Your task to perform on an android device: open a new tab in the chrome app Image 0: 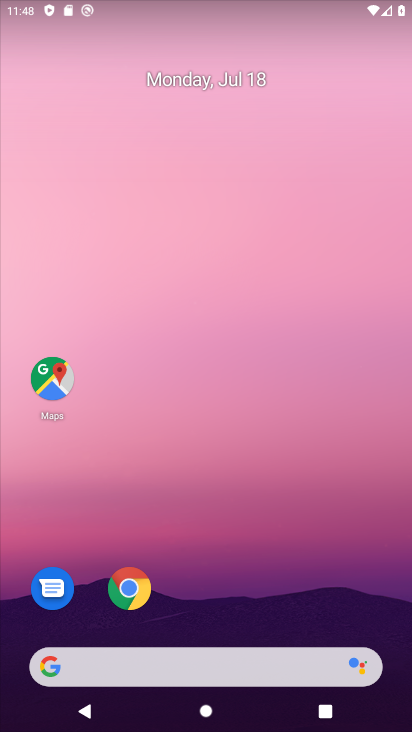
Step 0: drag from (299, 684) to (181, 10)
Your task to perform on an android device: open a new tab in the chrome app Image 1: 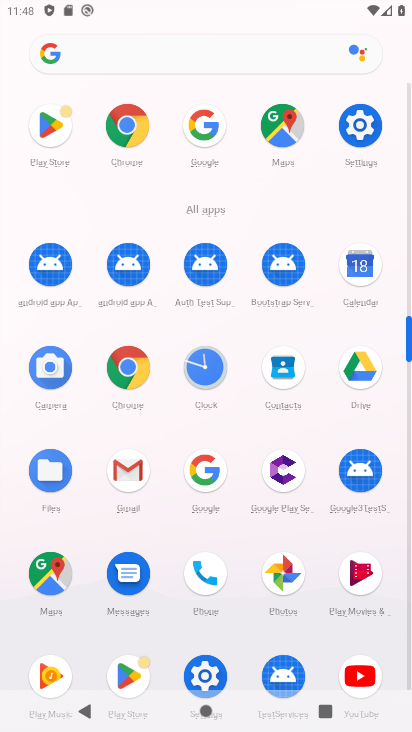
Step 1: click (123, 124)
Your task to perform on an android device: open a new tab in the chrome app Image 2: 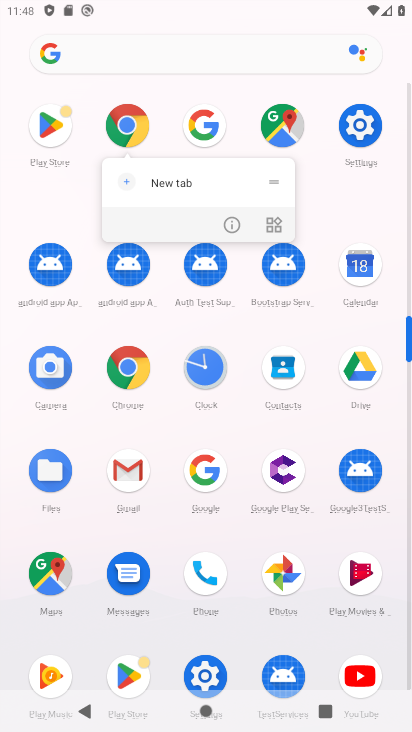
Step 2: click (136, 128)
Your task to perform on an android device: open a new tab in the chrome app Image 3: 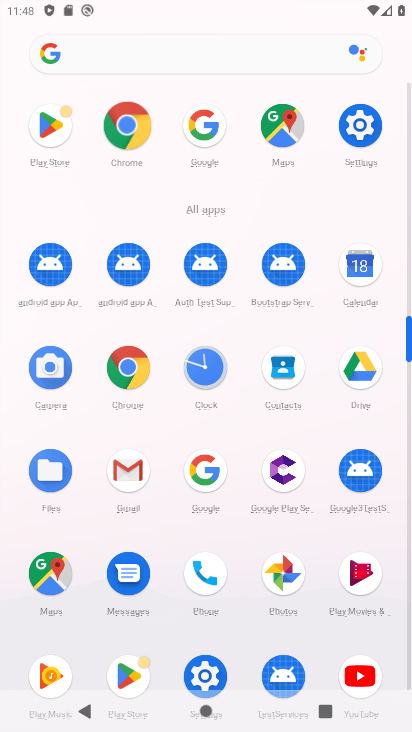
Step 3: click (133, 128)
Your task to perform on an android device: open a new tab in the chrome app Image 4: 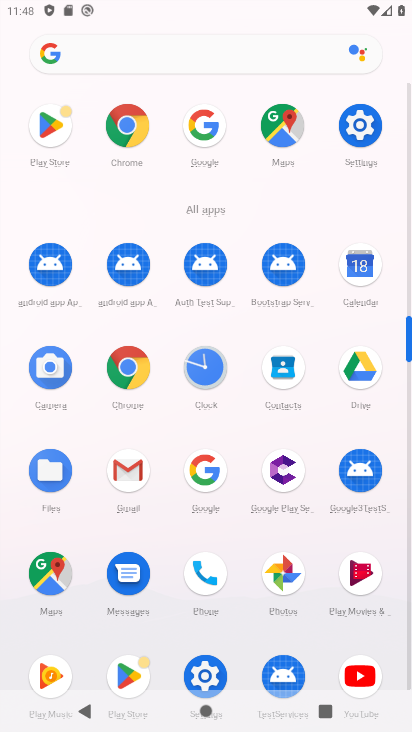
Step 4: click (132, 126)
Your task to perform on an android device: open a new tab in the chrome app Image 5: 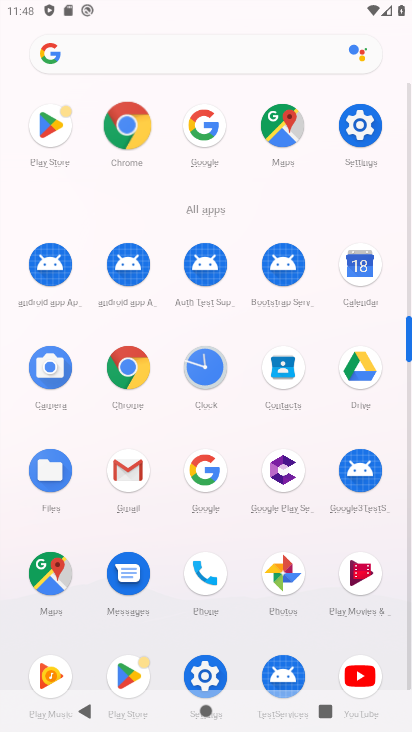
Step 5: click (140, 131)
Your task to perform on an android device: open a new tab in the chrome app Image 6: 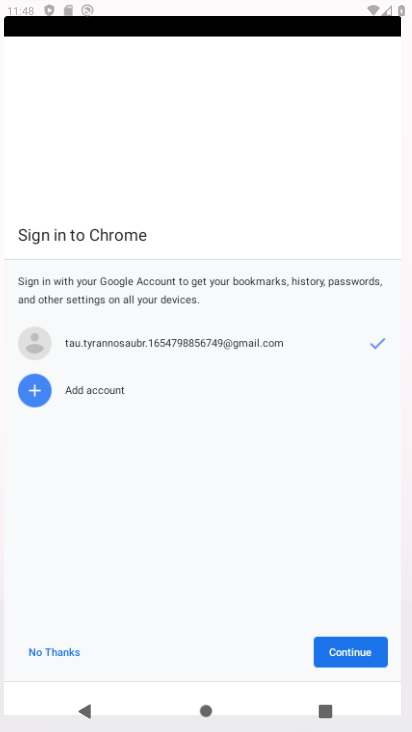
Step 6: click (141, 134)
Your task to perform on an android device: open a new tab in the chrome app Image 7: 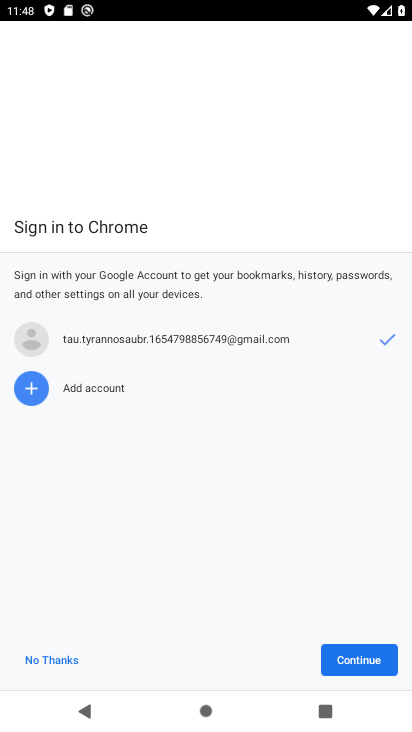
Step 7: click (126, 119)
Your task to perform on an android device: open a new tab in the chrome app Image 8: 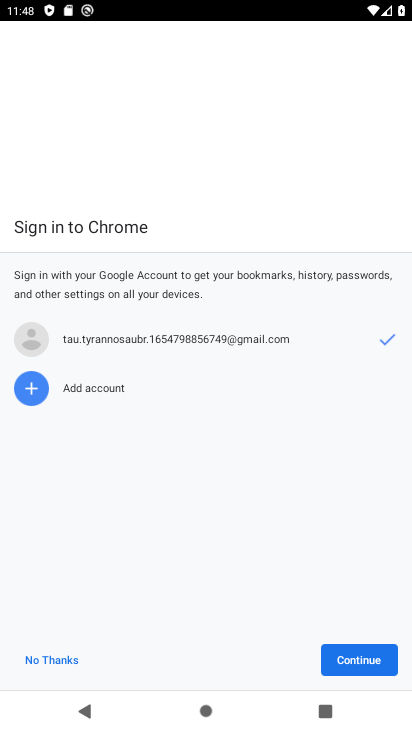
Step 8: click (127, 121)
Your task to perform on an android device: open a new tab in the chrome app Image 9: 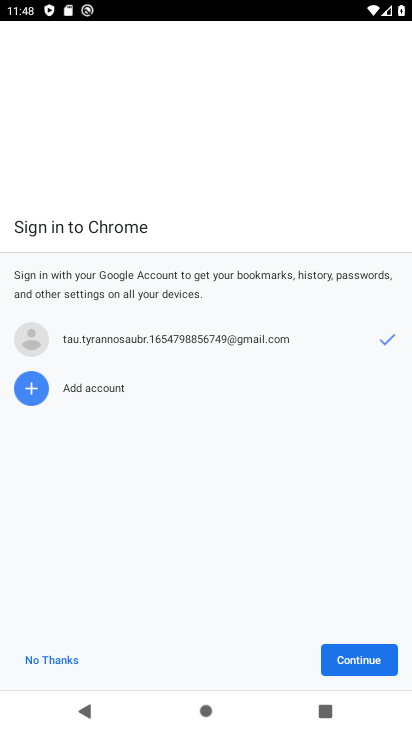
Step 9: click (128, 122)
Your task to perform on an android device: open a new tab in the chrome app Image 10: 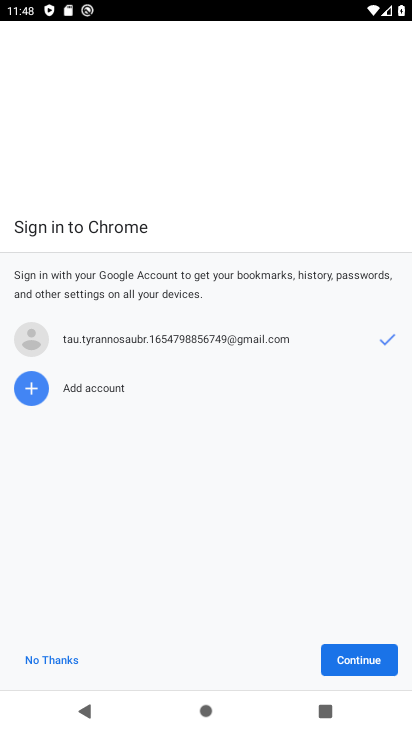
Step 10: click (42, 657)
Your task to perform on an android device: open a new tab in the chrome app Image 11: 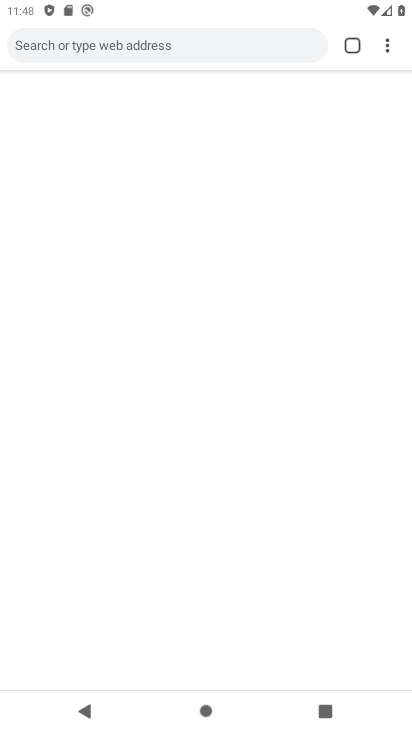
Step 11: click (49, 655)
Your task to perform on an android device: open a new tab in the chrome app Image 12: 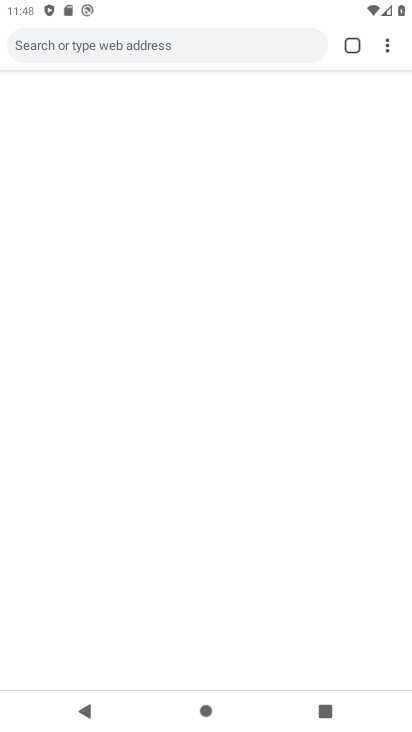
Step 12: click (53, 647)
Your task to perform on an android device: open a new tab in the chrome app Image 13: 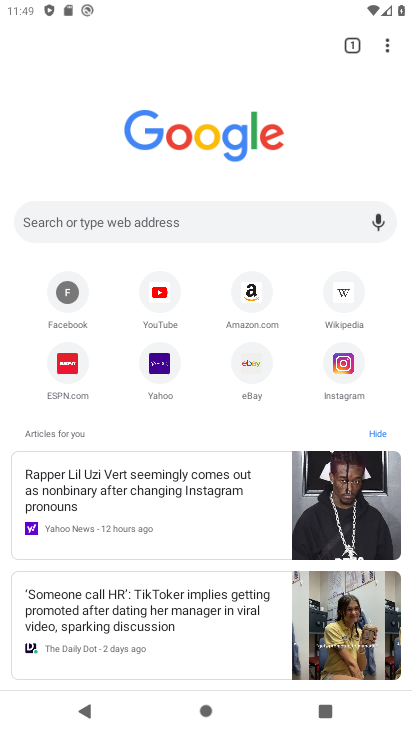
Step 13: drag from (386, 48) to (210, 92)
Your task to perform on an android device: open a new tab in the chrome app Image 14: 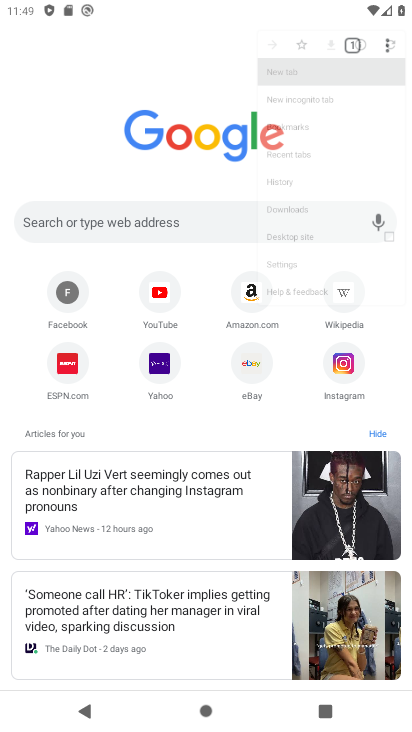
Step 14: click (210, 93)
Your task to perform on an android device: open a new tab in the chrome app Image 15: 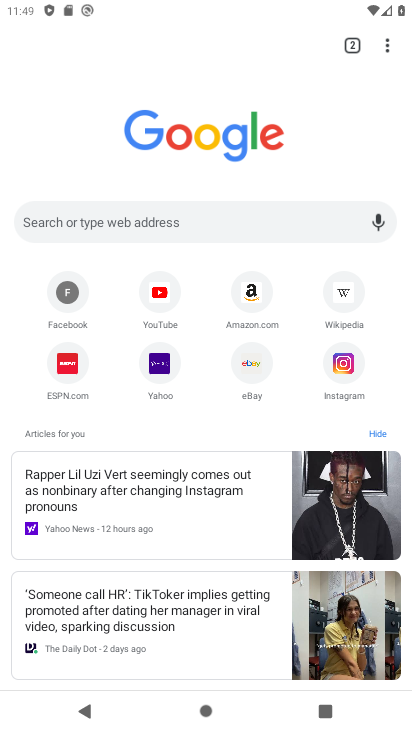
Step 15: drag from (383, 47) to (204, 87)
Your task to perform on an android device: open a new tab in the chrome app Image 16: 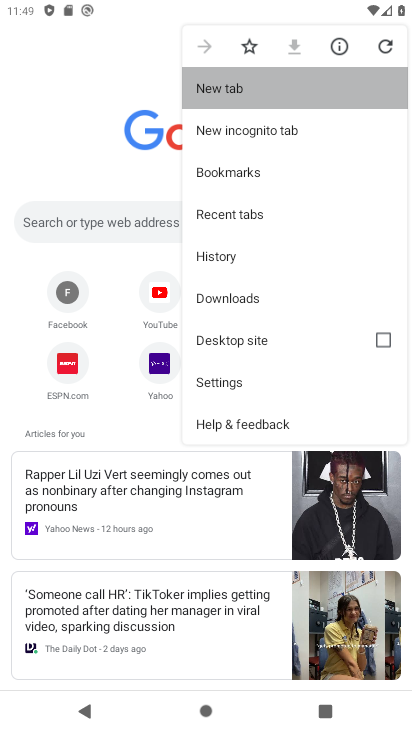
Step 16: click (206, 87)
Your task to perform on an android device: open a new tab in the chrome app Image 17: 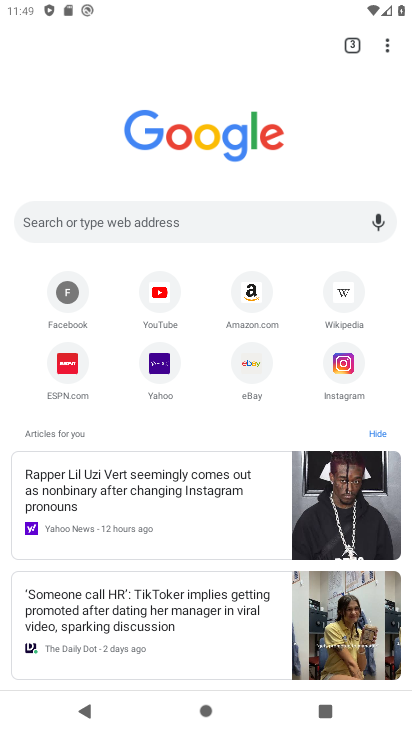
Step 17: task complete